Your task to perform on an android device: Open the phone app and click the voicemail tab. Image 0: 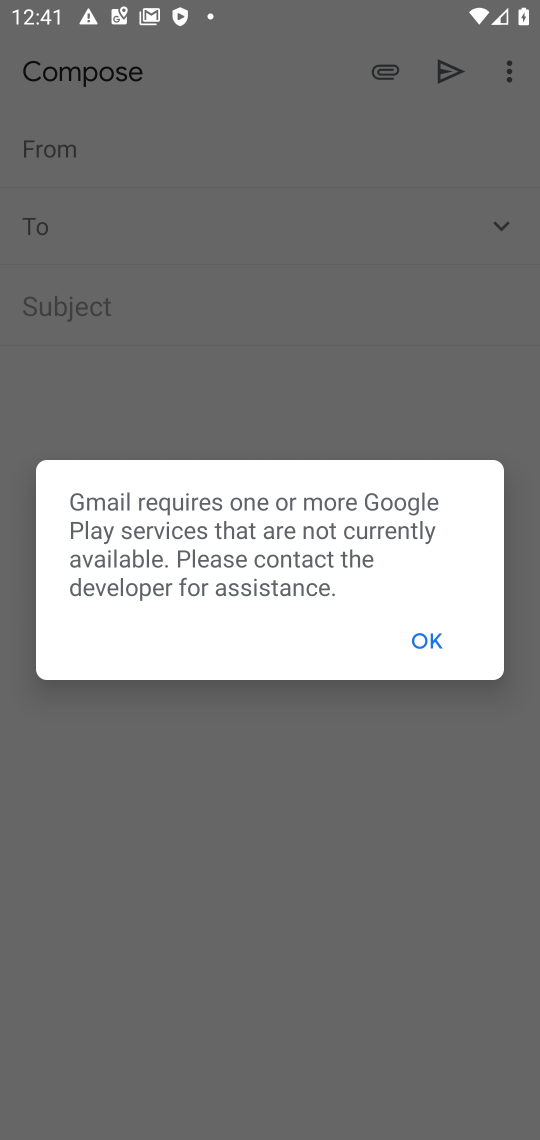
Step 0: press home button
Your task to perform on an android device: Open the phone app and click the voicemail tab. Image 1: 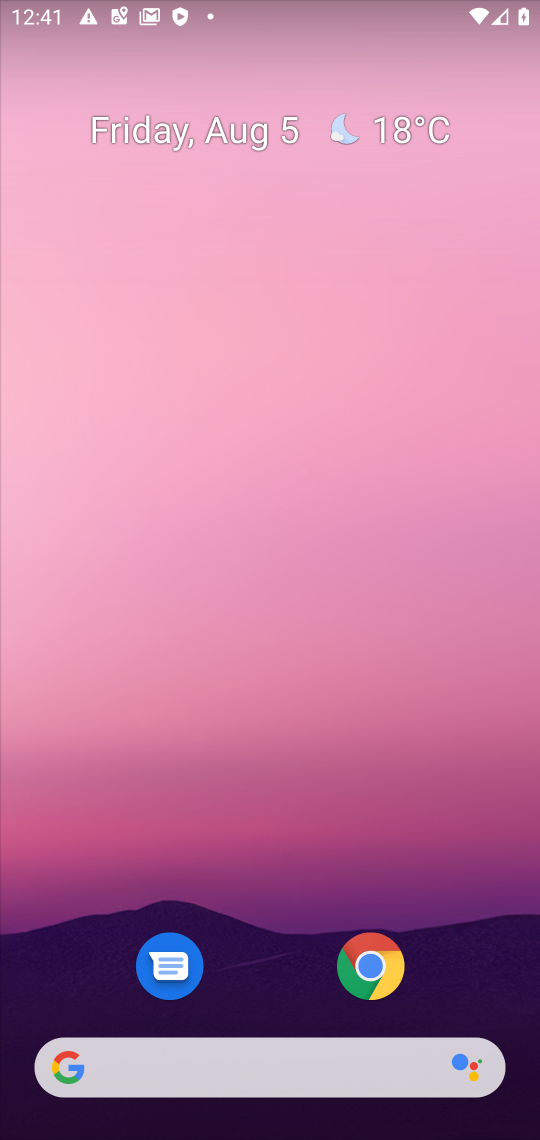
Step 1: drag from (283, 773) to (301, 12)
Your task to perform on an android device: Open the phone app and click the voicemail tab. Image 2: 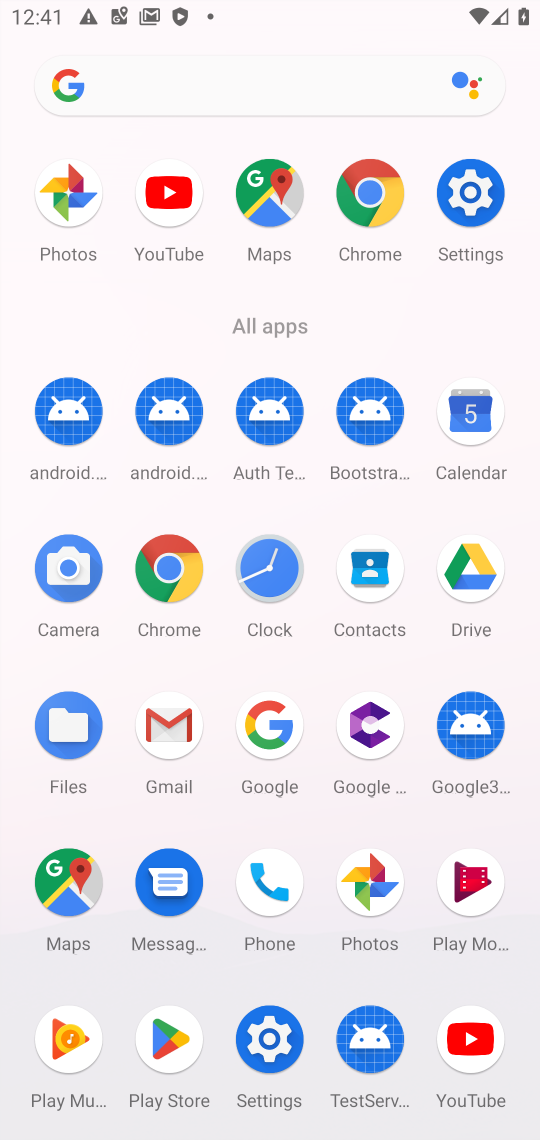
Step 2: click (254, 890)
Your task to perform on an android device: Open the phone app and click the voicemail tab. Image 3: 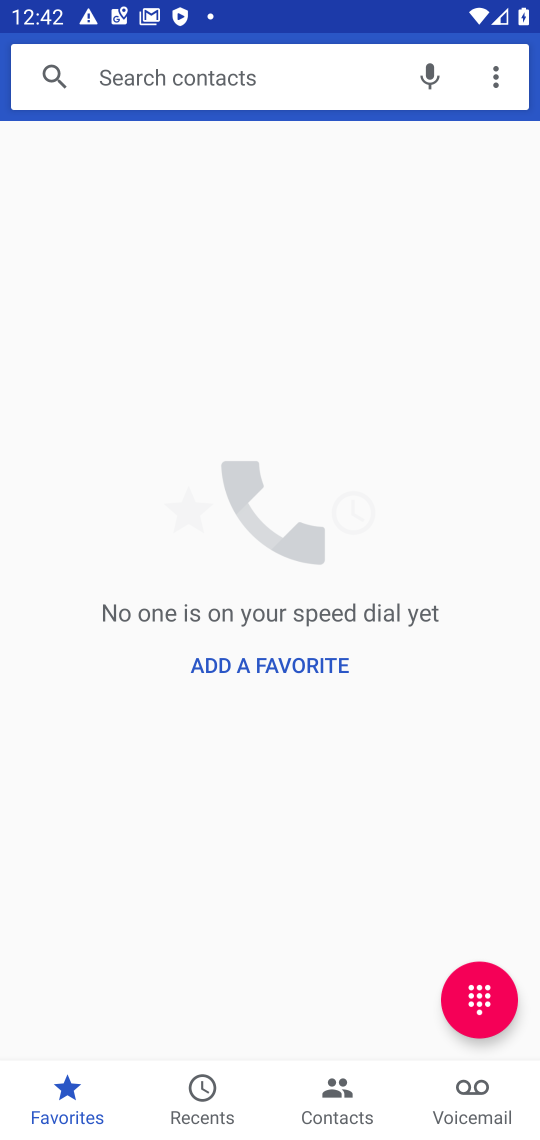
Step 3: click (465, 1097)
Your task to perform on an android device: Open the phone app and click the voicemail tab. Image 4: 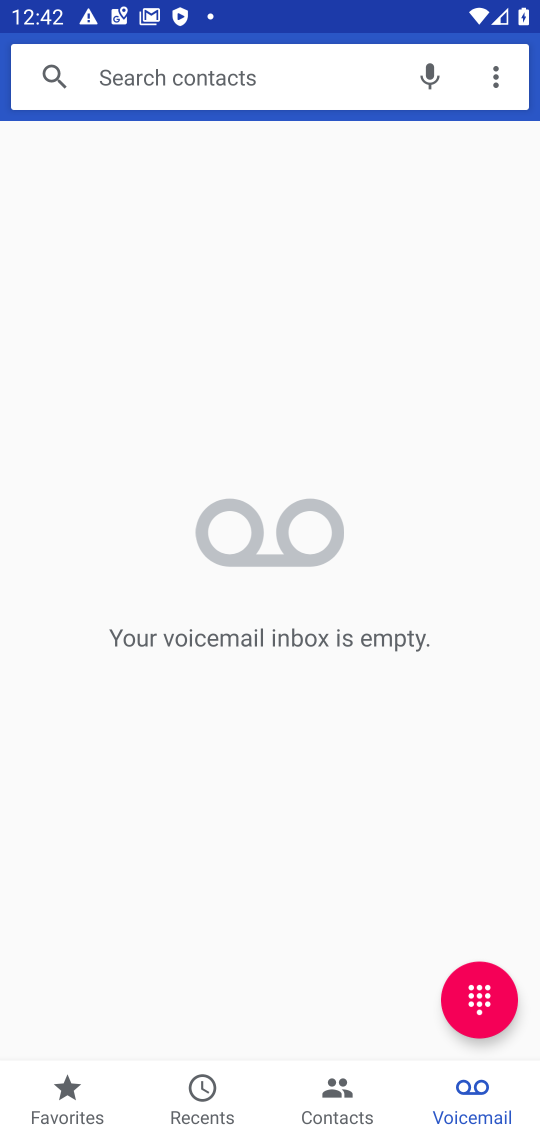
Step 4: task complete